Your task to perform on an android device: Go to battery settings Image 0: 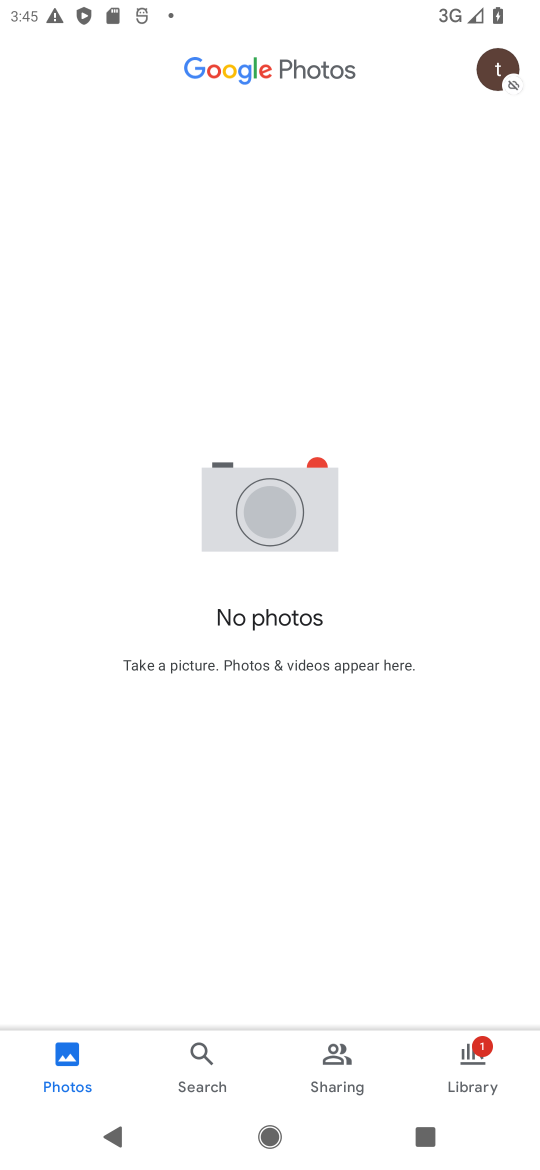
Step 0: press home button
Your task to perform on an android device: Go to battery settings Image 1: 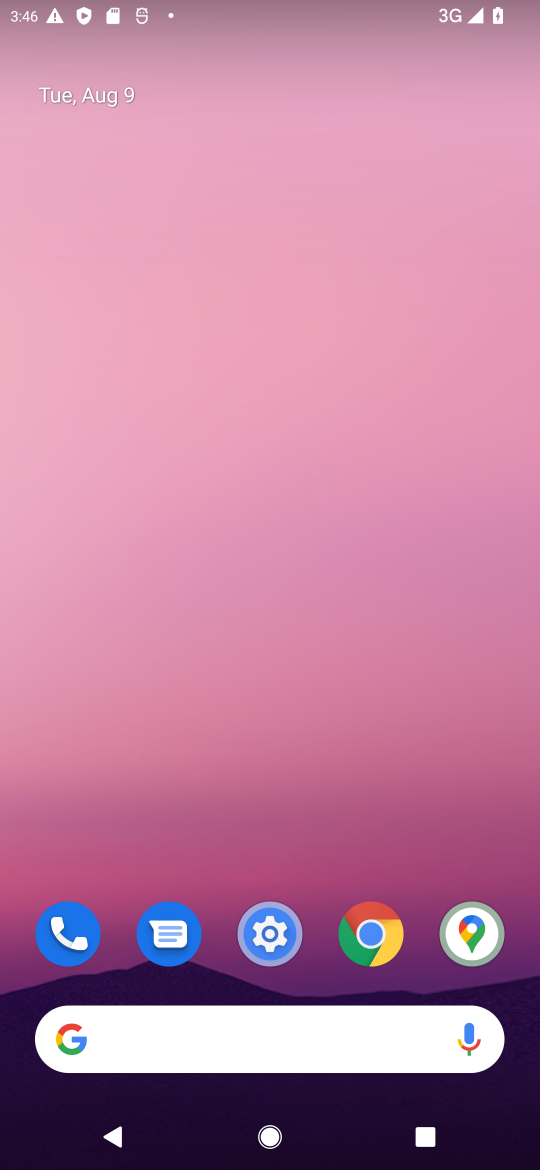
Step 1: click (258, 961)
Your task to perform on an android device: Go to battery settings Image 2: 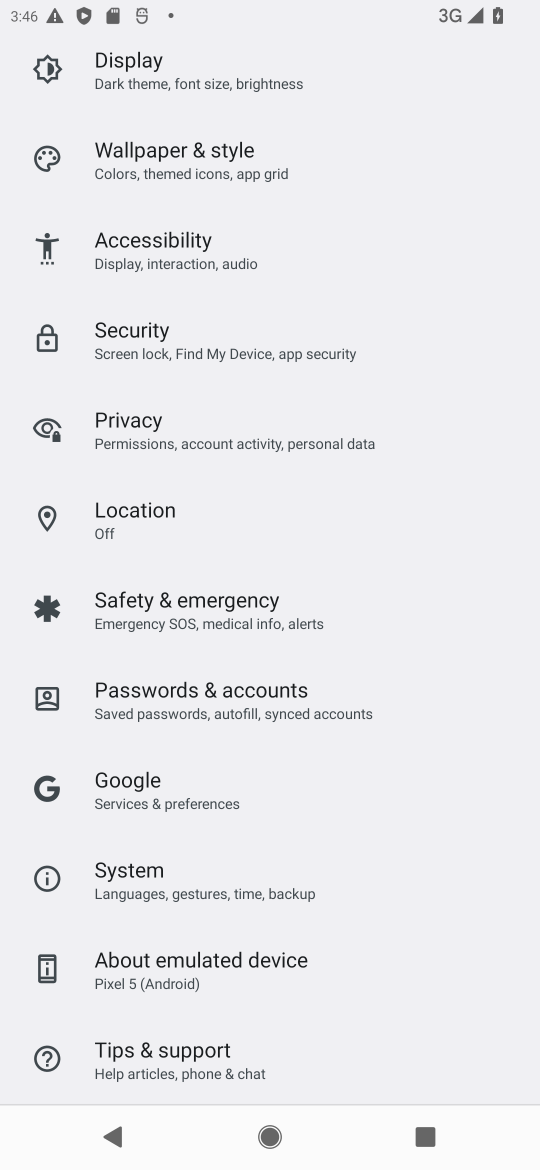
Step 2: drag from (229, 619) to (239, 1077)
Your task to perform on an android device: Go to battery settings Image 3: 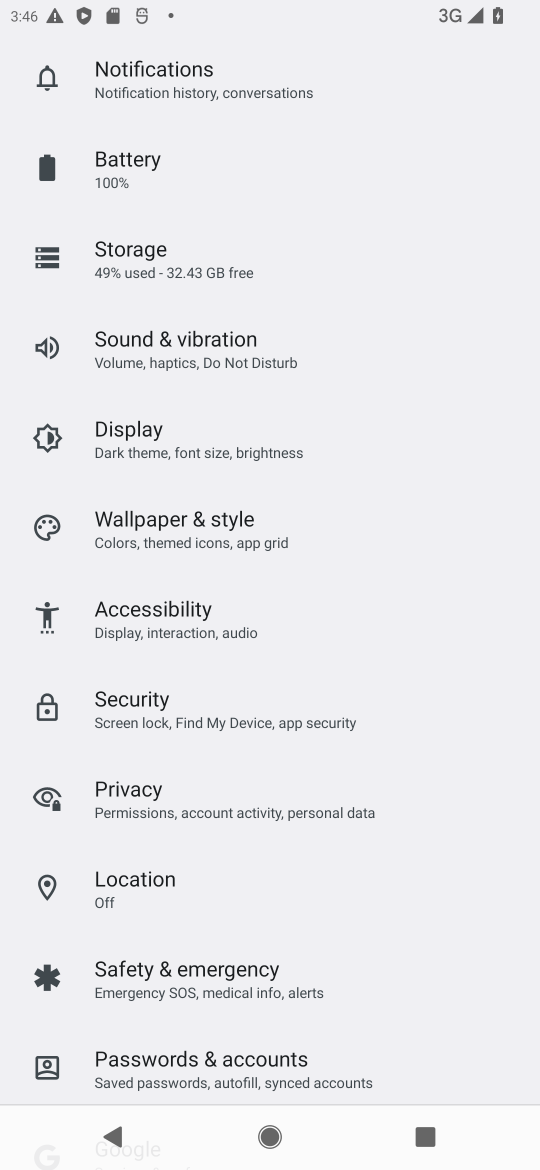
Step 3: click (160, 205)
Your task to perform on an android device: Go to battery settings Image 4: 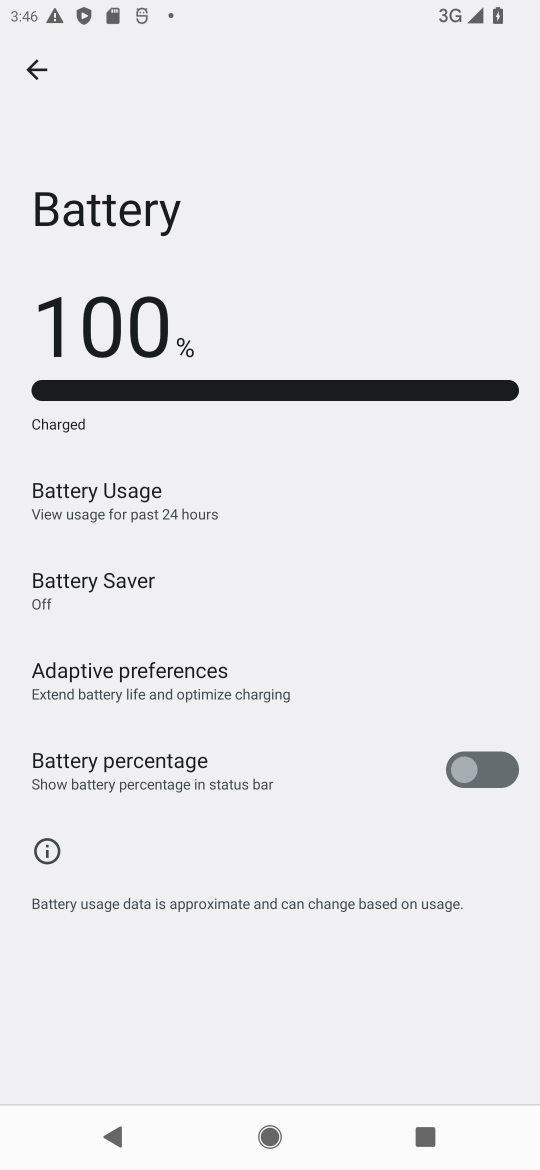
Step 4: task complete